Your task to perform on an android device: Go to accessibility settings Image 0: 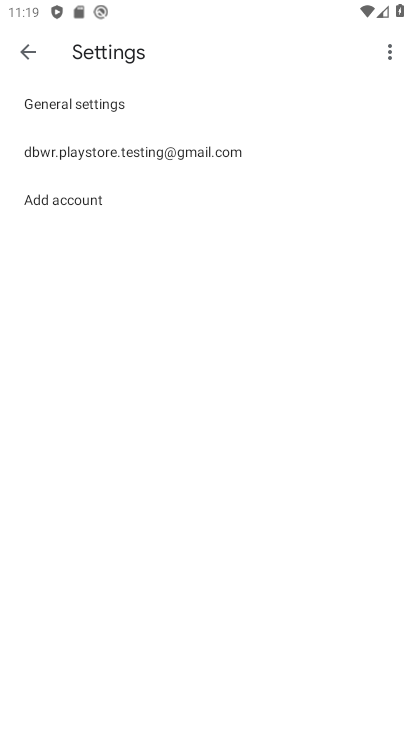
Step 0: press home button
Your task to perform on an android device: Go to accessibility settings Image 1: 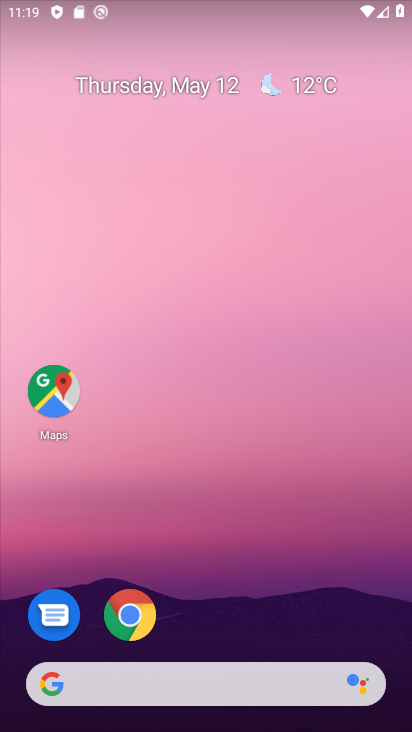
Step 1: drag from (266, 564) to (247, 46)
Your task to perform on an android device: Go to accessibility settings Image 2: 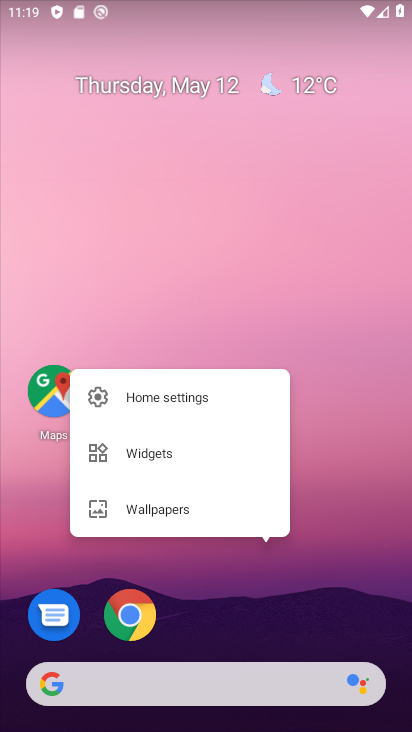
Step 2: click (314, 535)
Your task to perform on an android device: Go to accessibility settings Image 3: 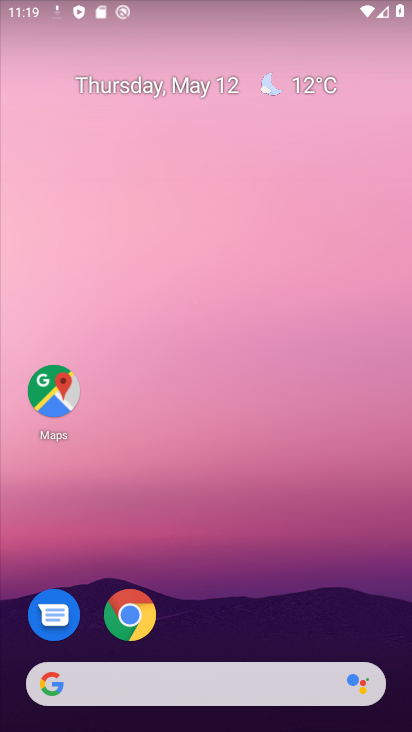
Step 3: drag from (212, 565) to (245, 30)
Your task to perform on an android device: Go to accessibility settings Image 4: 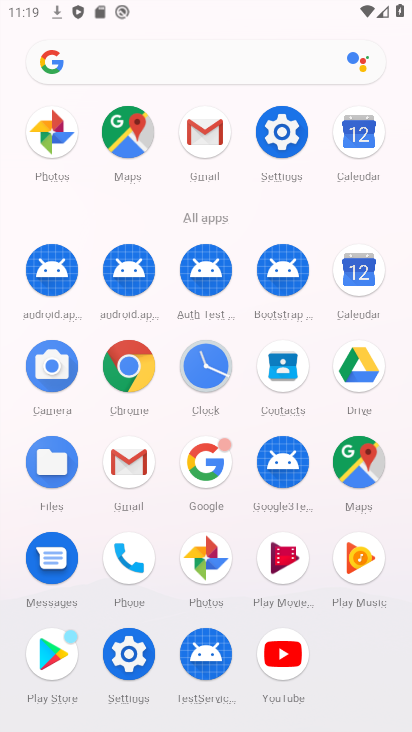
Step 4: click (280, 142)
Your task to perform on an android device: Go to accessibility settings Image 5: 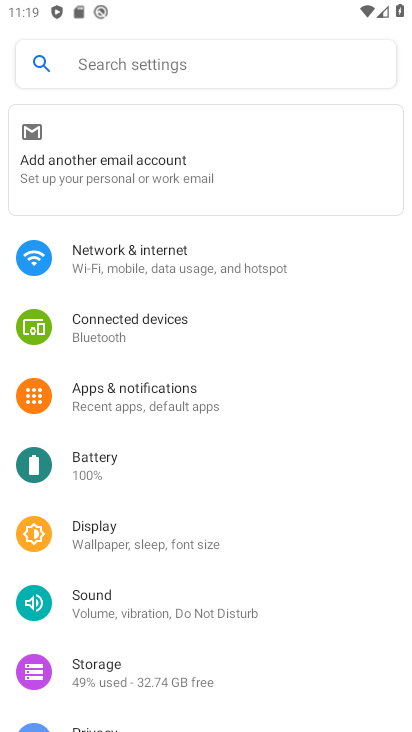
Step 5: drag from (217, 636) to (208, 147)
Your task to perform on an android device: Go to accessibility settings Image 6: 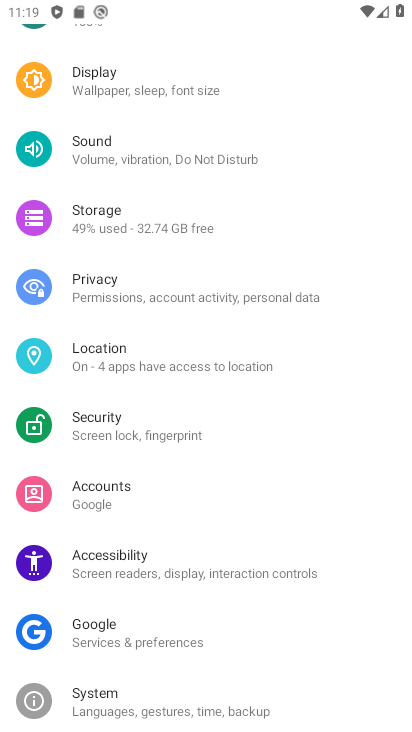
Step 6: click (189, 559)
Your task to perform on an android device: Go to accessibility settings Image 7: 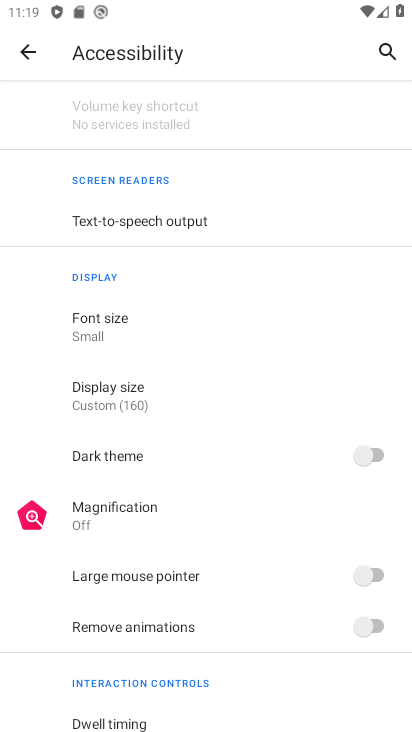
Step 7: task complete